Your task to perform on an android device: Open calendar and show me the fourth week of next month Image 0: 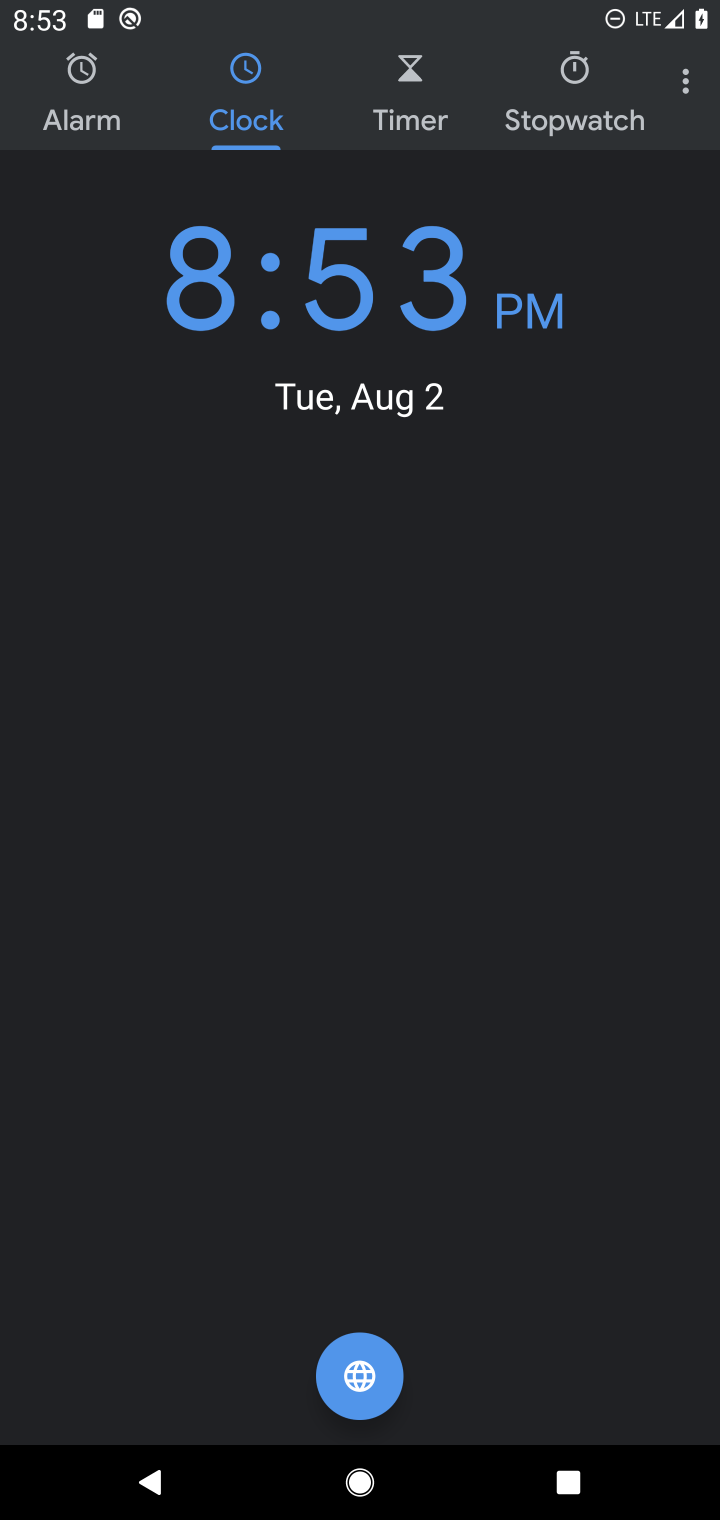
Step 0: press home button
Your task to perform on an android device: Open calendar and show me the fourth week of next month Image 1: 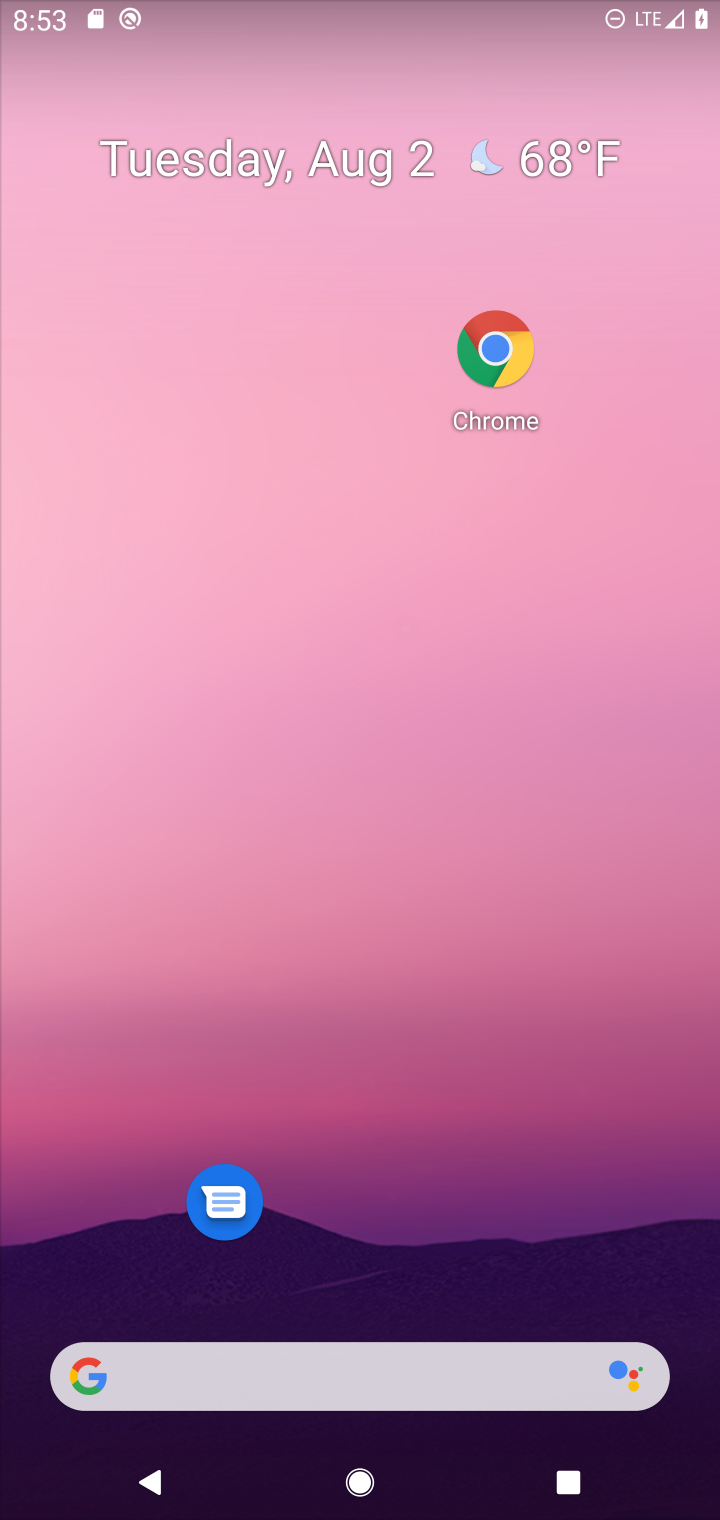
Step 1: drag from (372, 959) to (385, 236)
Your task to perform on an android device: Open calendar and show me the fourth week of next month Image 2: 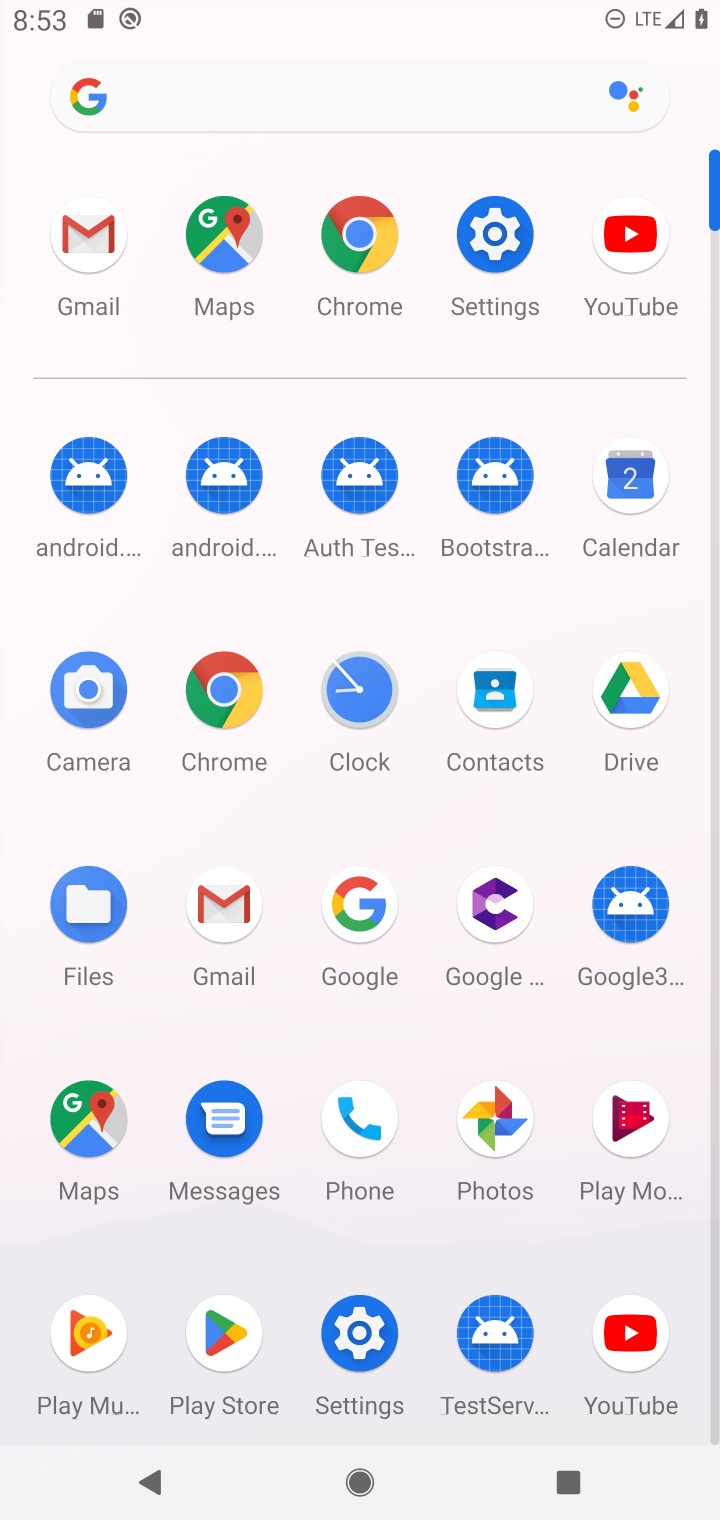
Step 2: click (609, 484)
Your task to perform on an android device: Open calendar and show me the fourth week of next month Image 3: 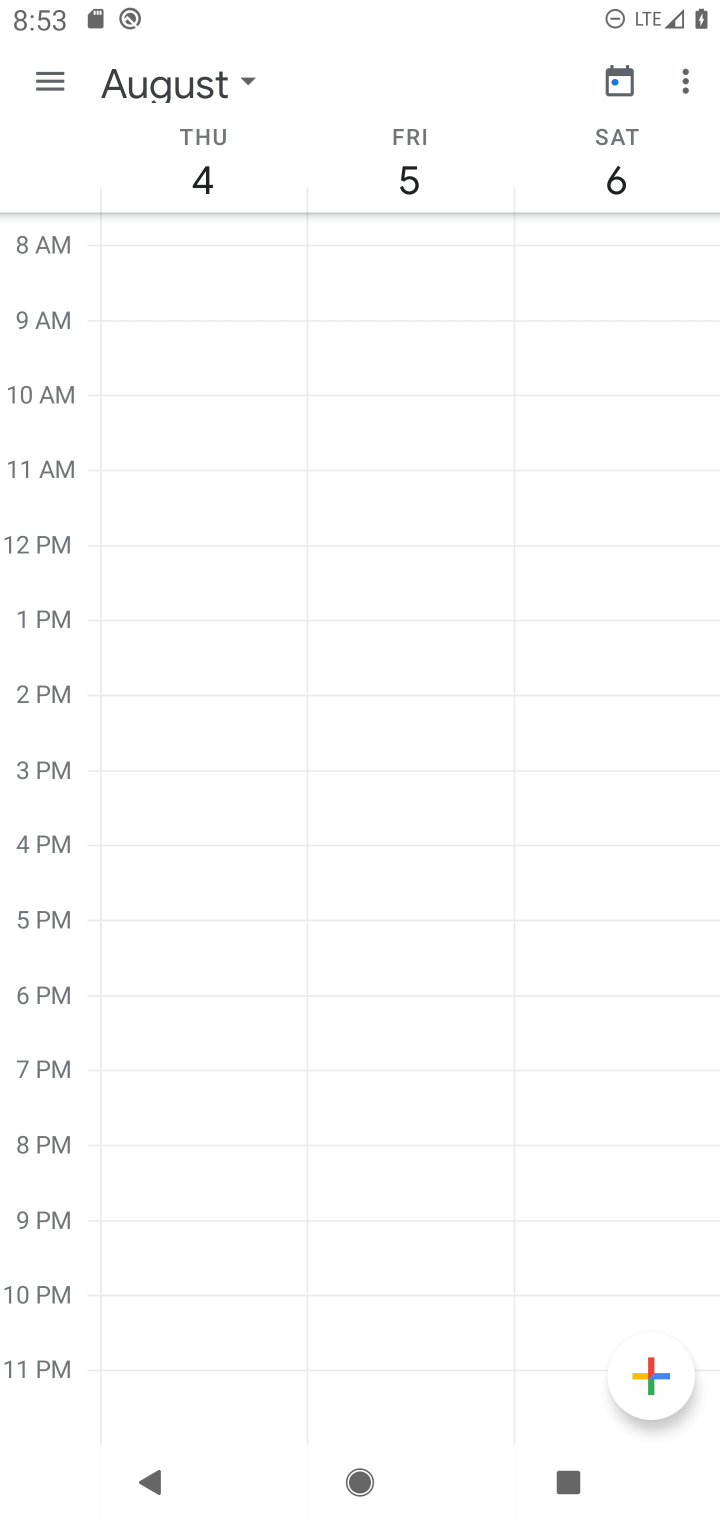
Step 3: click (256, 83)
Your task to perform on an android device: Open calendar and show me the fourth week of next month Image 4: 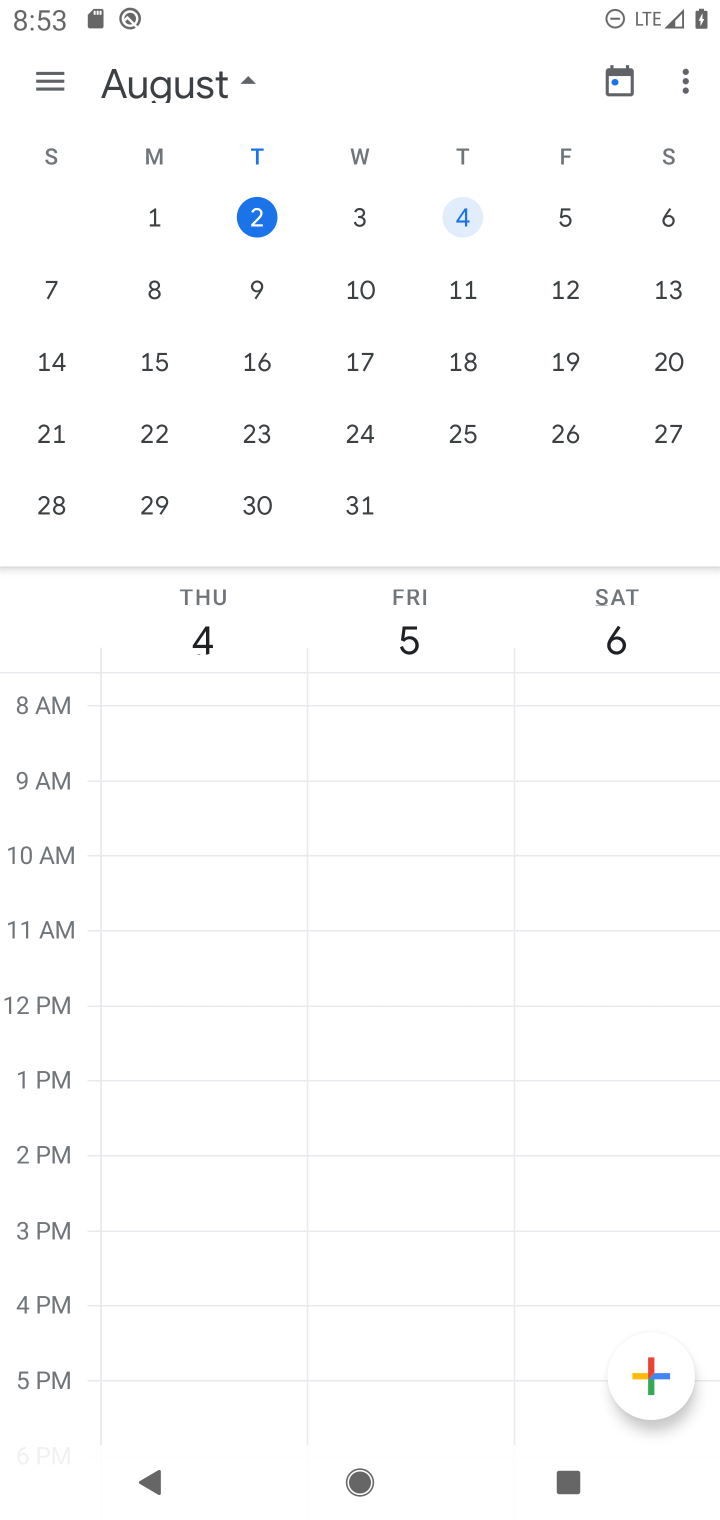
Step 4: drag from (615, 356) to (0, 390)
Your task to perform on an android device: Open calendar and show me the fourth week of next month Image 5: 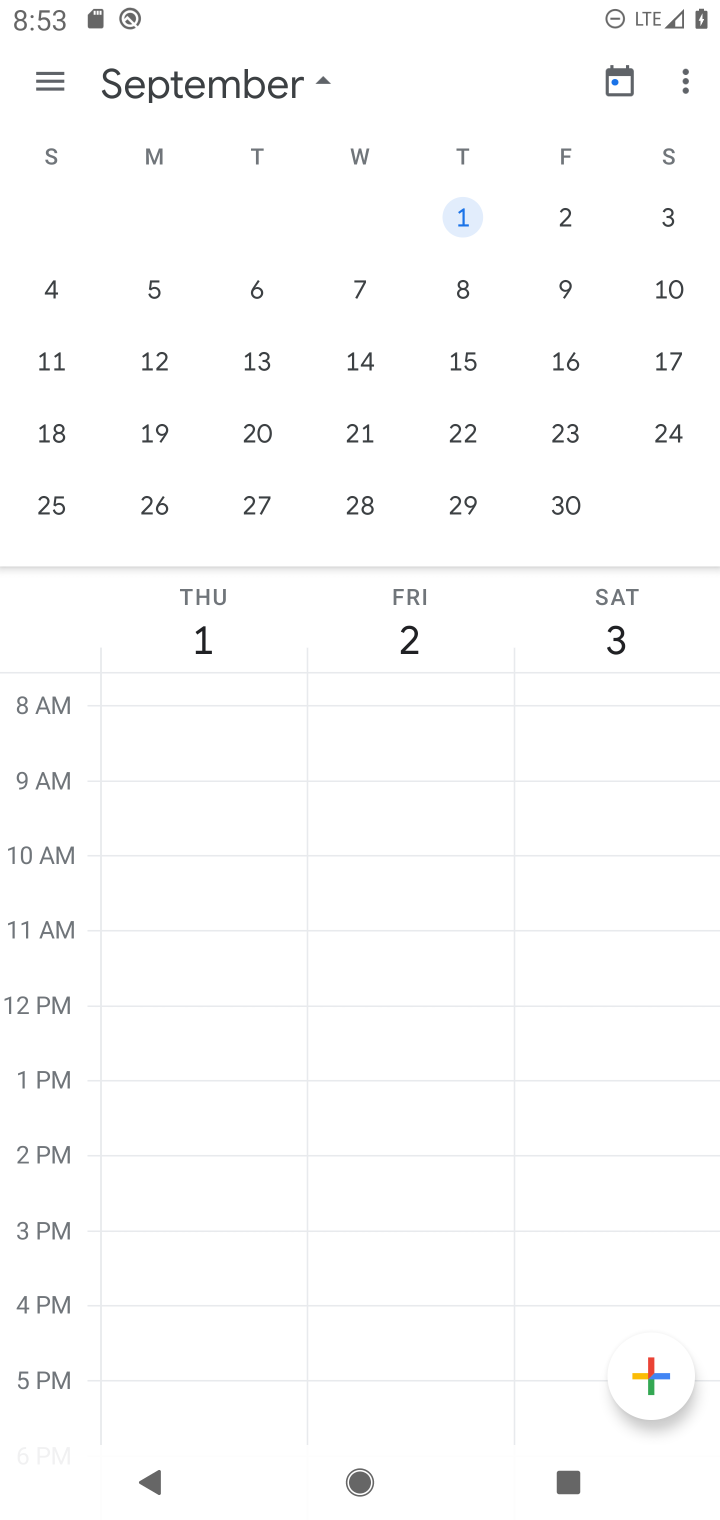
Step 5: click (44, 91)
Your task to perform on an android device: Open calendar and show me the fourth week of next month Image 6: 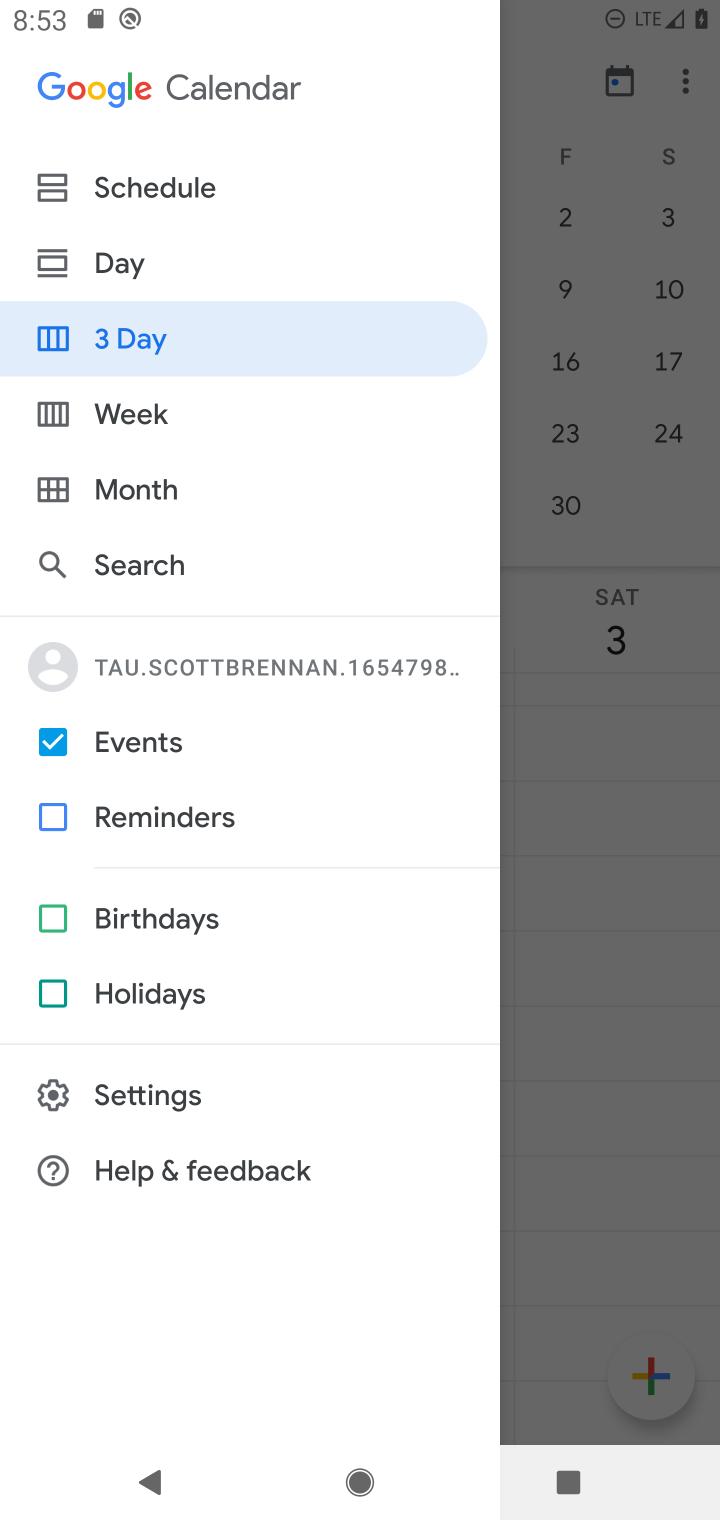
Step 6: click (98, 424)
Your task to perform on an android device: Open calendar and show me the fourth week of next month Image 7: 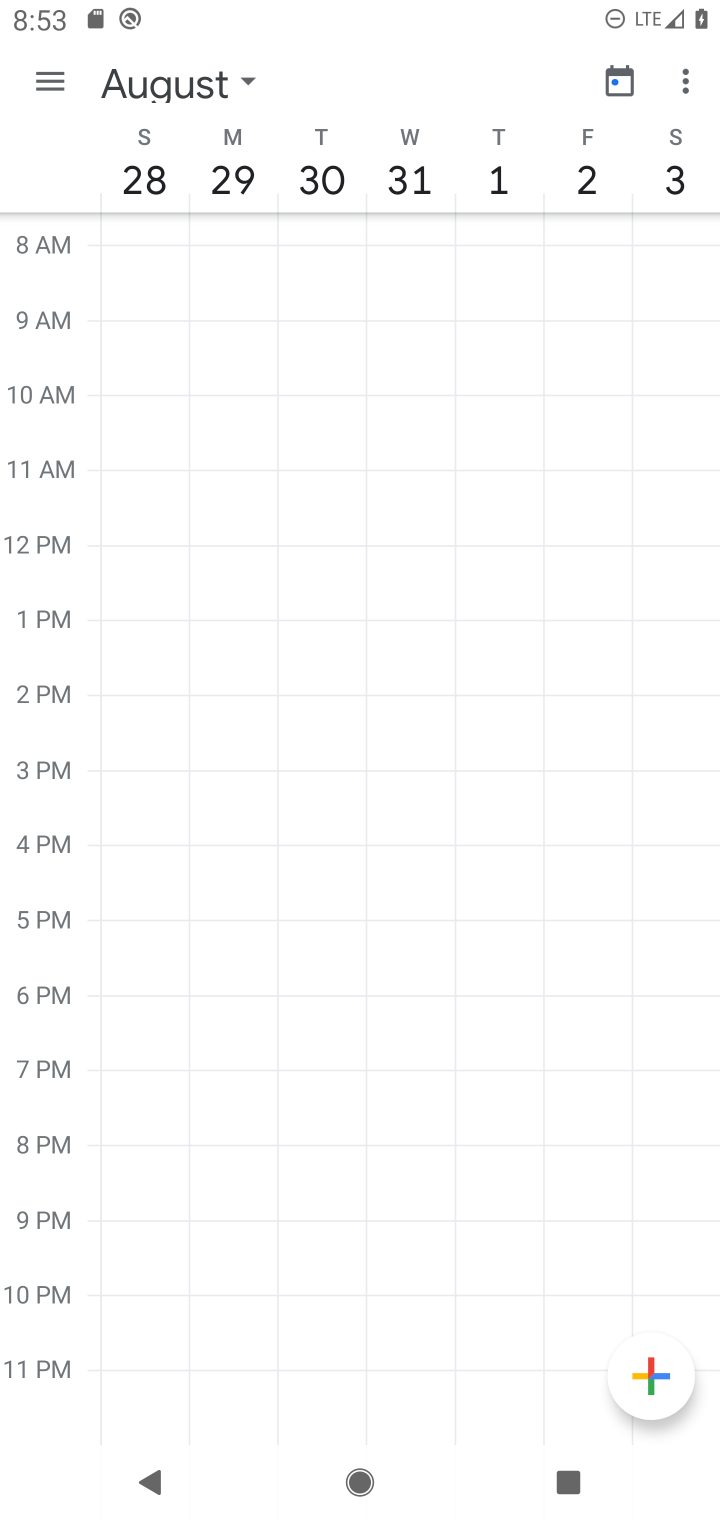
Step 7: task complete